Your task to perform on an android device: Show me productivity apps on the Play Store Image 0: 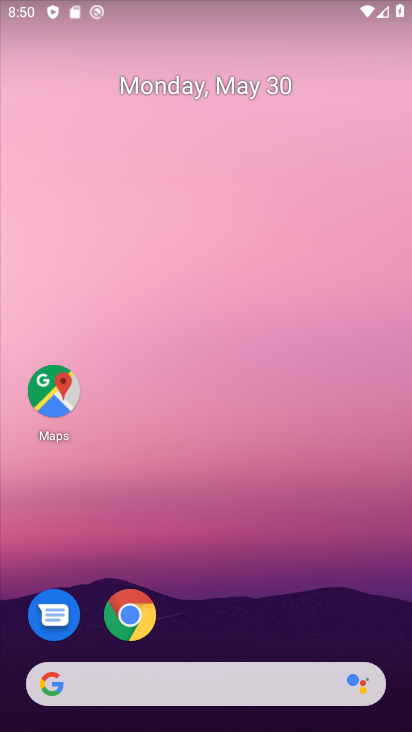
Step 0: drag from (263, 513) to (245, 15)
Your task to perform on an android device: Show me productivity apps on the Play Store Image 1: 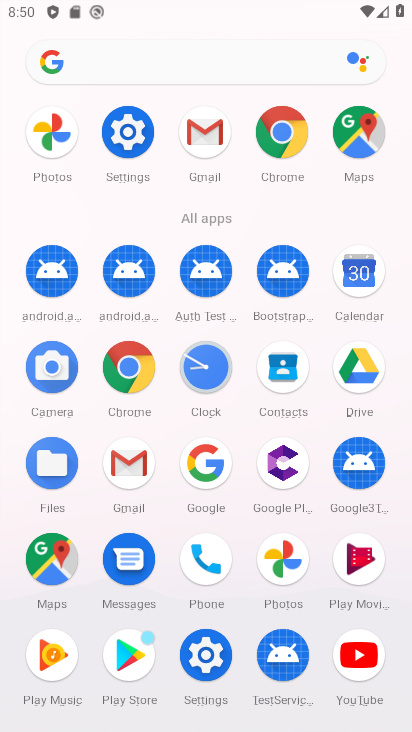
Step 1: click (144, 655)
Your task to perform on an android device: Show me productivity apps on the Play Store Image 2: 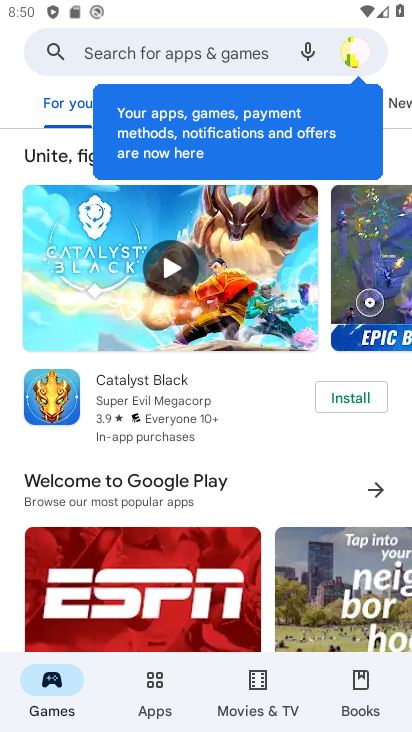
Step 2: click (167, 692)
Your task to perform on an android device: Show me productivity apps on the Play Store Image 3: 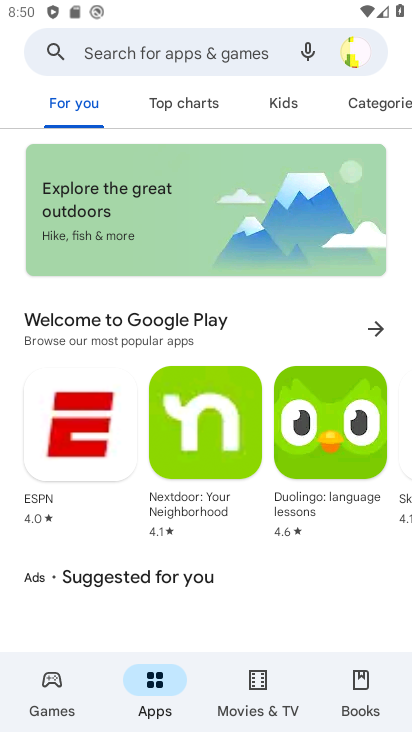
Step 3: click (159, 44)
Your task to perform on an android device: Show me productivity apps on the Play Store Image 4: 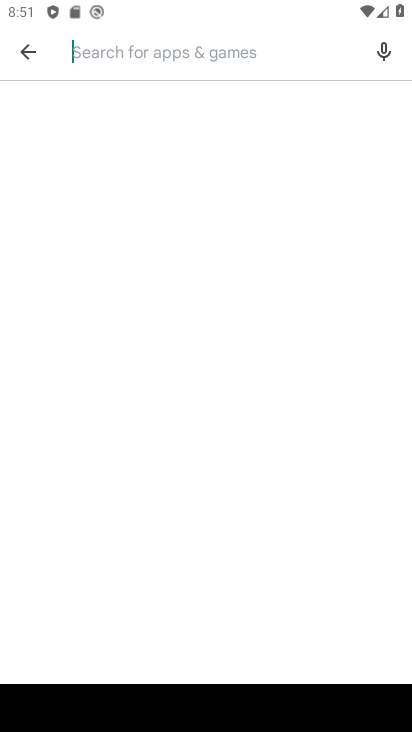
Step 4: type "productivity apops"
Your task to perform on an android device: Show me productivity apps on the Play Store Image 5: 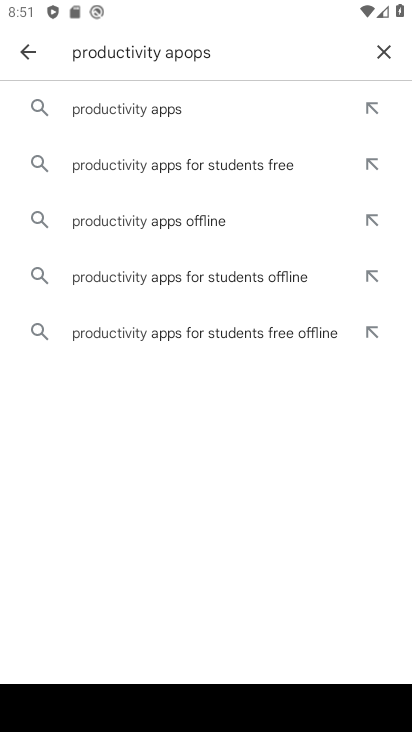
Step 5: click (133, 105)
Your task to perform on an android device: Show me productivity apps on the Play Store Image 6: 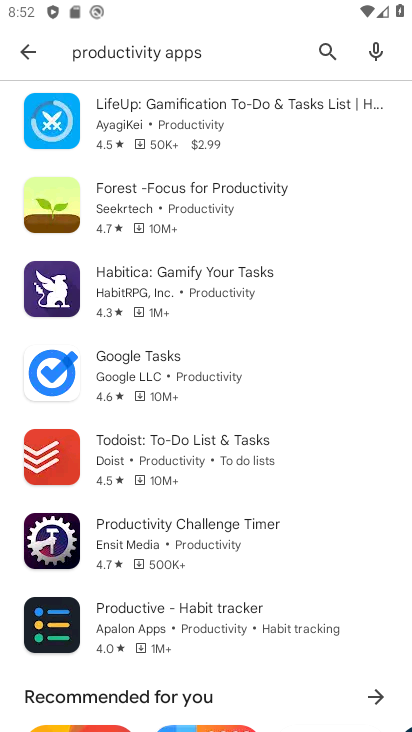
Step 6: task complete